Your task to perform on an android device: turn on improve location accuracy Image 0: 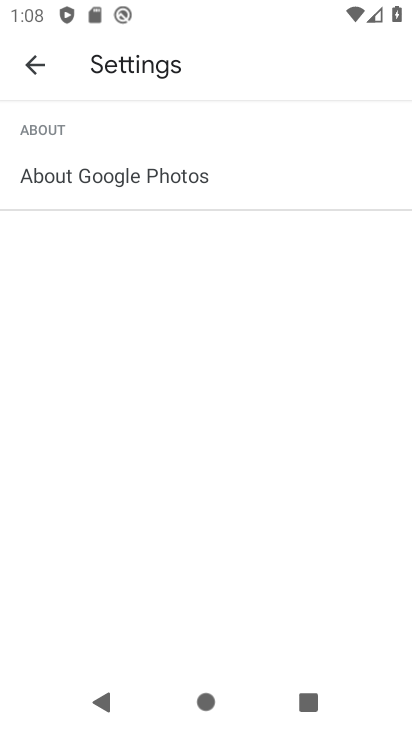
Step 0: press home button
Your task to perform on an android device: turn on improve location accuracy Image 1: 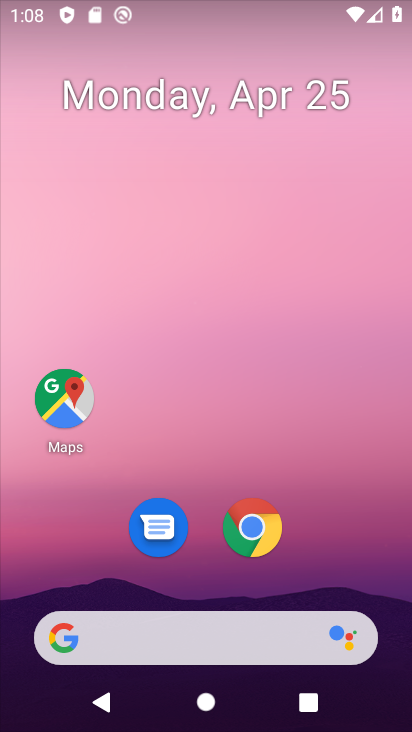
Step 1: drag from (397, 613) to (323, 140)
Your task to perform on an android device: turn on improve location accuracy Image 2: 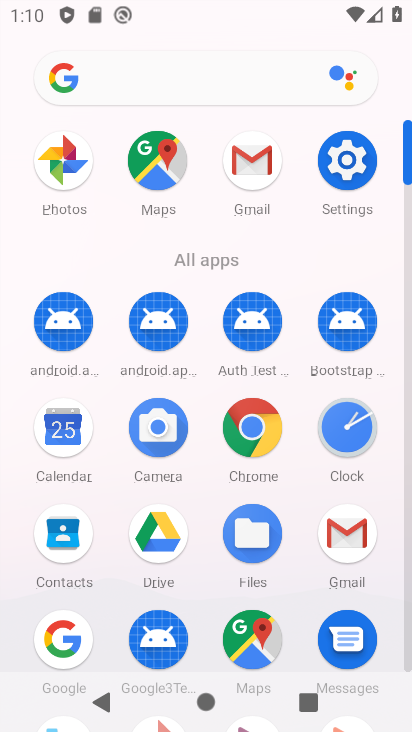
Step 2: click (348, 168)
Your task to perform on an android device: turn on improve location accuracy Image 3: 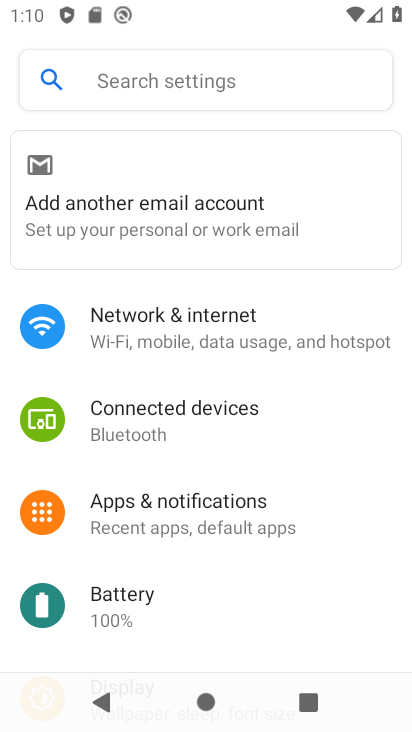
Step 3: drag from (228, 582) to (232, 68)
Your task to perform on an android device: turn on improve location accuracy Image 4: 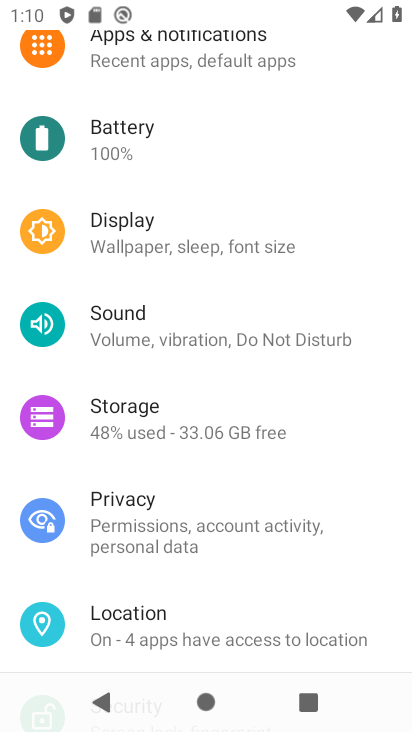
Step 4: click (156, 621)
Your task to perform on an android device: turn on improve location accuracy Image 5: 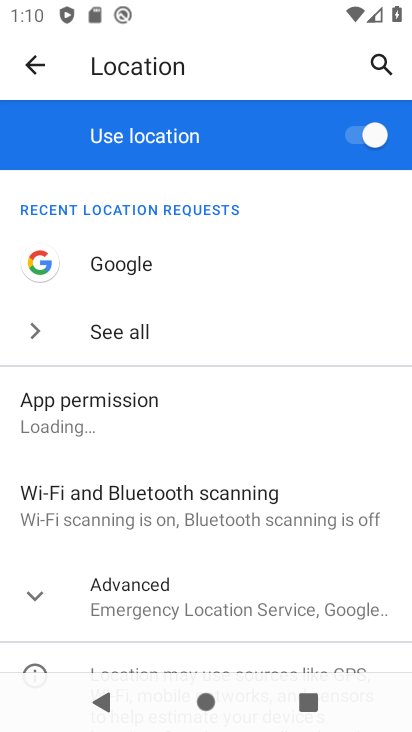
Step 5: click (157, 600)
Your task to perform on an android device: turn on improve location accuracy Image 6: 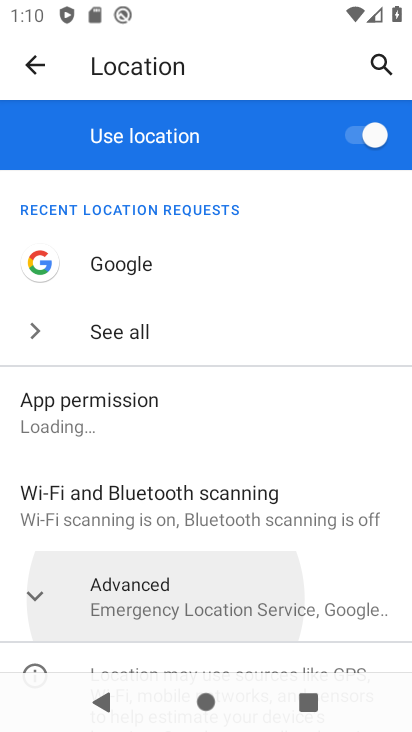
Step 6: drag from (167, 591) to (223, 359)
Your task to perform on an android device: turn on improve location accuracy Image 7: 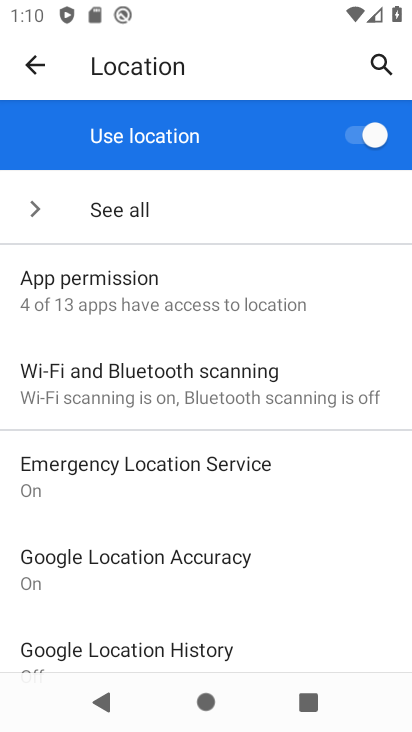
Step 7: click (205, 546)
Your task to perform on an android device: turn on improve location accuracy Image 8: 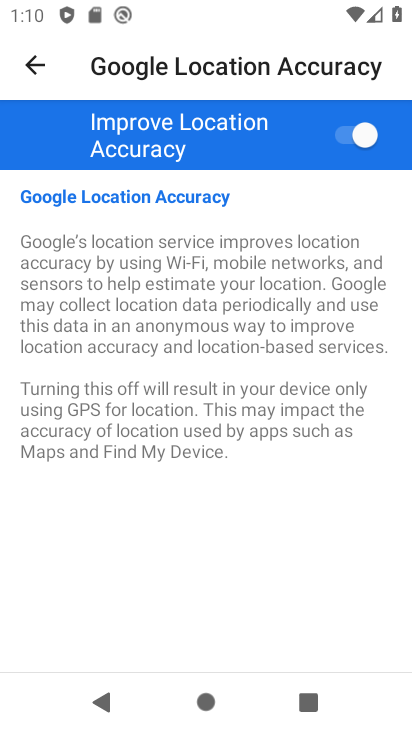
Step 8: task complete